Your task to perform on an android device: Open the calendar app, open the side menu, and click the "Day" option Image 0: 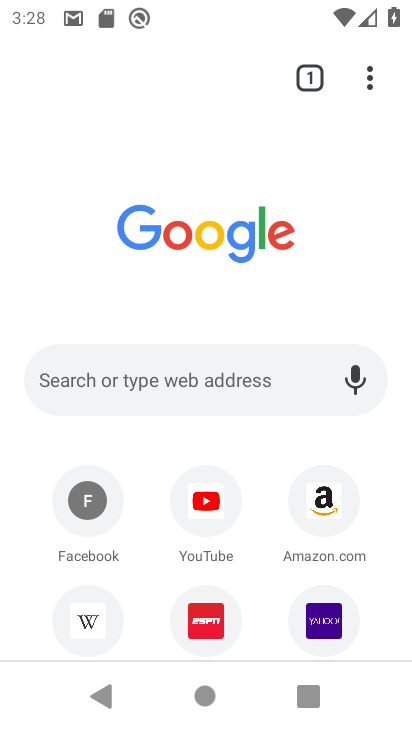
Step 0: press home button
Your task to perform on an android device: Open the calendar app, open the side menu, and click the "Day" option Image 1: 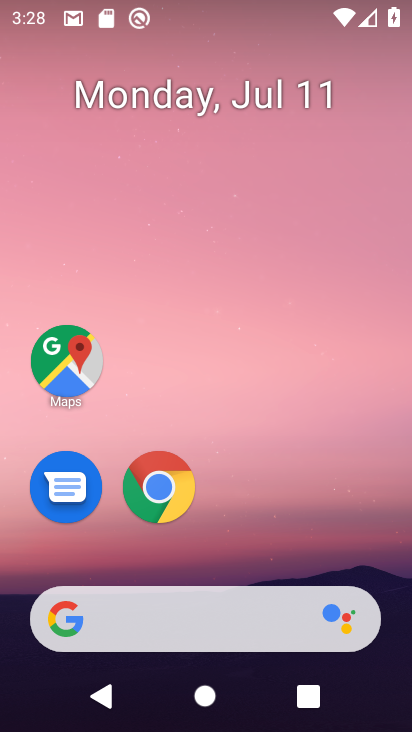
Step 1: drag from (220, 614) to (294, 150)
Your task to perform on an android device: Open the calendar app, open the side menu, and click the "Day" option Image 2: 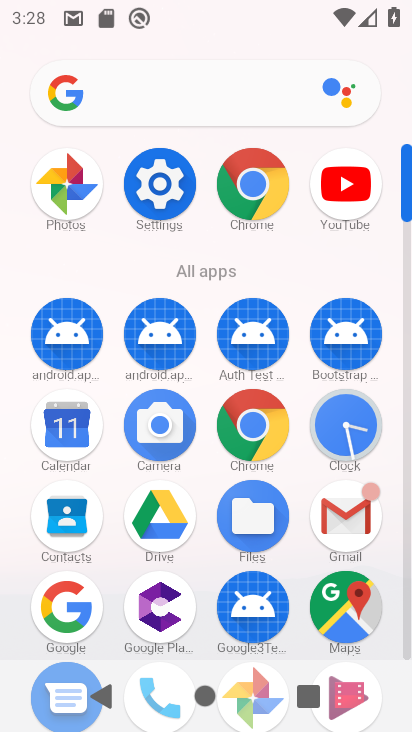
Step 2: drag from (179, 594) to (293, 219)
Your task to perform on an android device: Open the calendar app, open the side menu, and click the "Day" option Image 3: 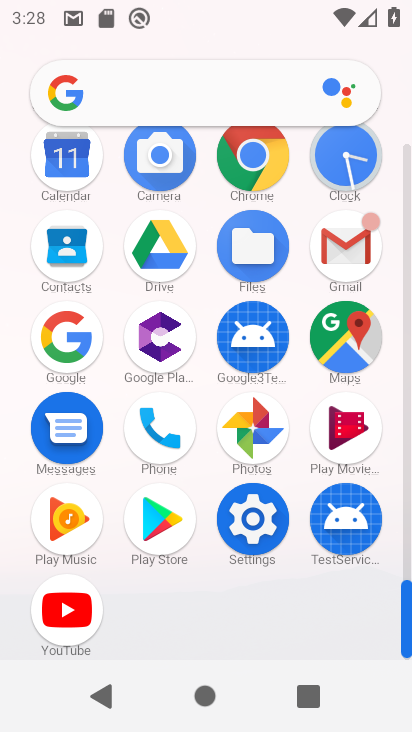
Step 3: click (64, 165)
Your task to perform on an android device: Open the calendar app, open the side menu, and click the "Day" option Image 4: 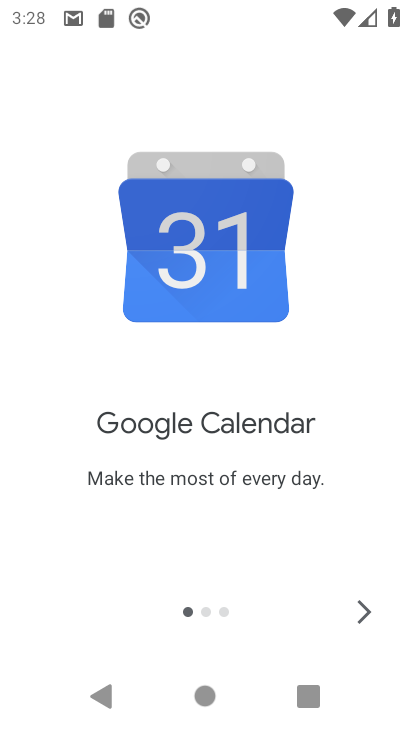
Step 4: click (367, 604)
Your task to perform on an android device: Open the calendar app, open the side menu, and click the "Day" option Image 5: 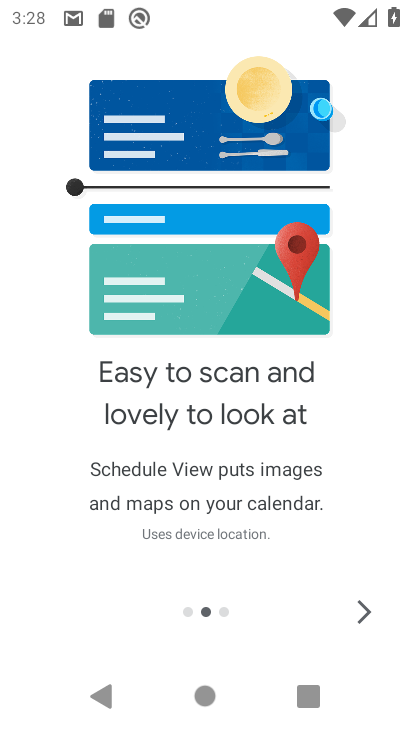
Step 5: click (366, 603)
Your task to perform on an android device: Open the calendar app, open the side menu, and click the "Day" option Image 6: 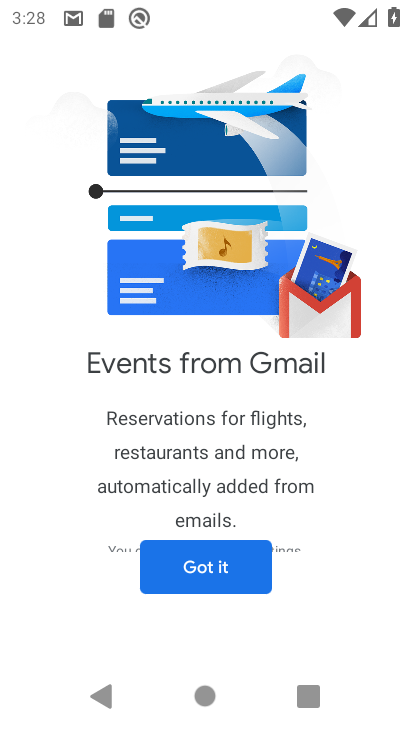
Step 6: click (200, 565)
Your task to perform on an android device: Open the calendar app, open the side menu, and click the "Day" option Image 7: 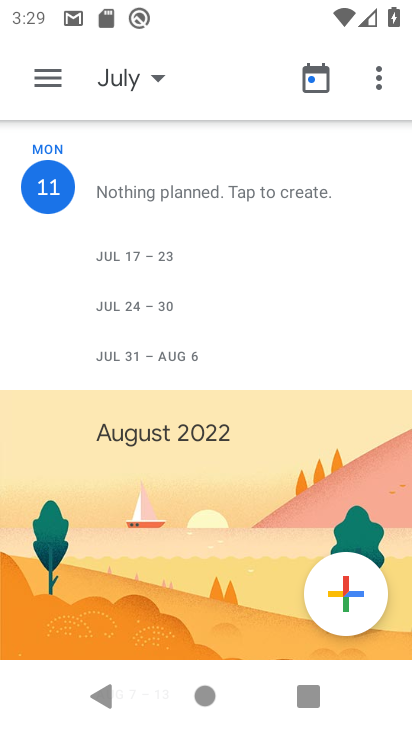
Step 7: click (49, 74)
Your task to perform on an android device: Open the calendar app, open the side menu, and click the "Day" option Image 8: 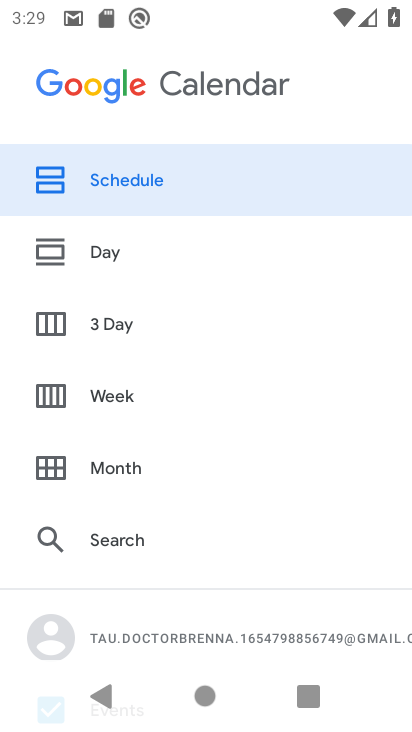
Step 8: click (97, 259)
Your task to perform on an android device: Open the calendar app, open the side menu, and click the "Day" option Image 9: 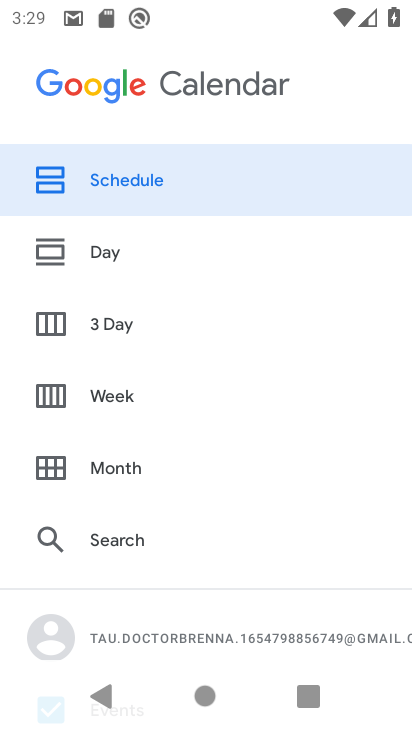
Step 9: click (98, 252)
Your task to perform on an android device: Open the calendar app, open the side menu, and click the "Day" option Image 10: 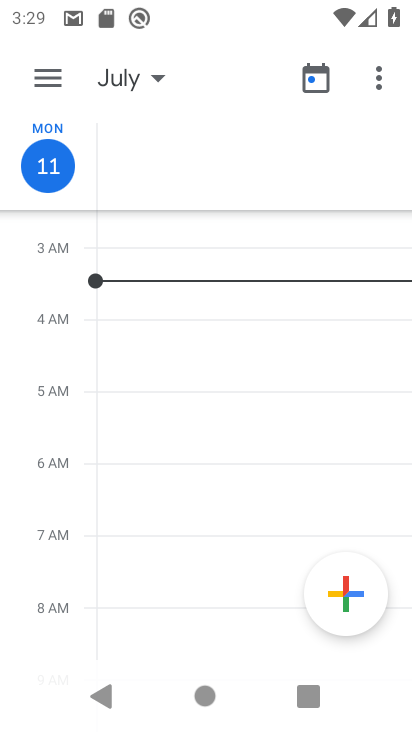
Step 10: task complete